Your task to perform on an android device: Open the calendar app, open the side menu, and click the "Day" option Image 0: 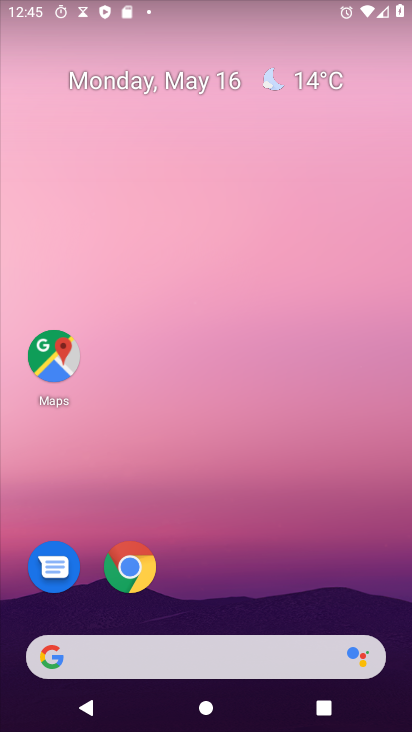
Step 0: drag from (279, 605) to (340, 6)
Your task to perform on an android device: Open the calendar app, open the side menu, and click the "Day" option Image 1: 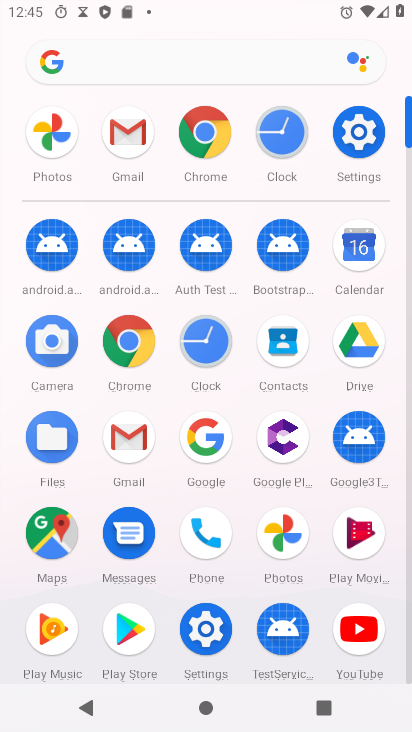
Step 1: click (367, 240)
Your task to perform on an android device: Open the calendar app, open the side menu, and click the "Day" option Image 2: 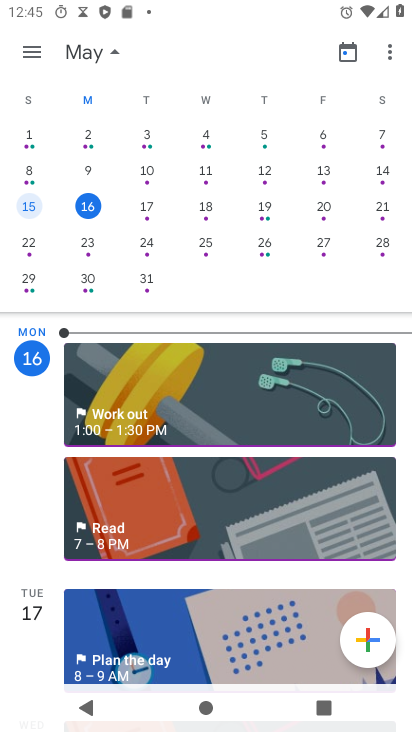
Step 2: click (100, 52)
Your task to perform on an android device: Open the calendar app, open the side menu, and click the "Day" option Image 3: 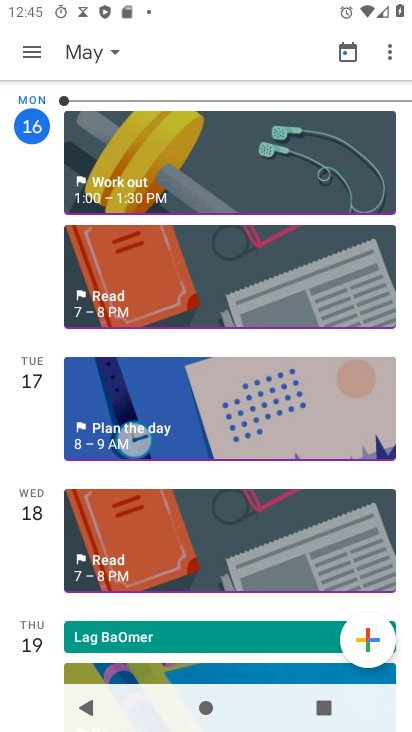
Step 3: click (31, 57)
Your task to perform on an android device: Open the calendar app, open the side menu, and click the "Day" option Image 4: 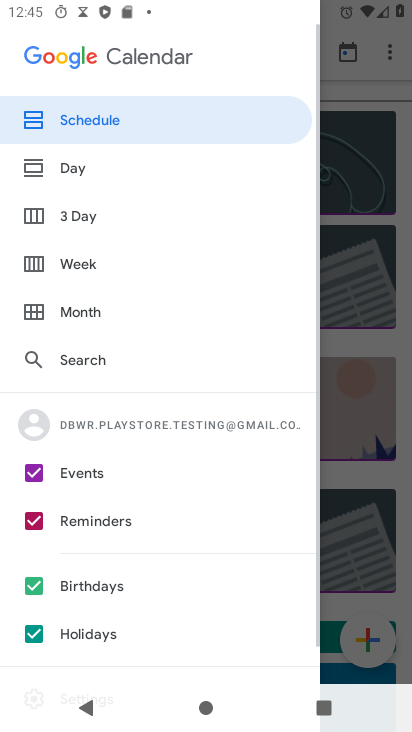
Step 4: click (91, 169)
Your task to perform on an android device: Open the calendar app, open the side menu, and click the "Day" option Image 5: 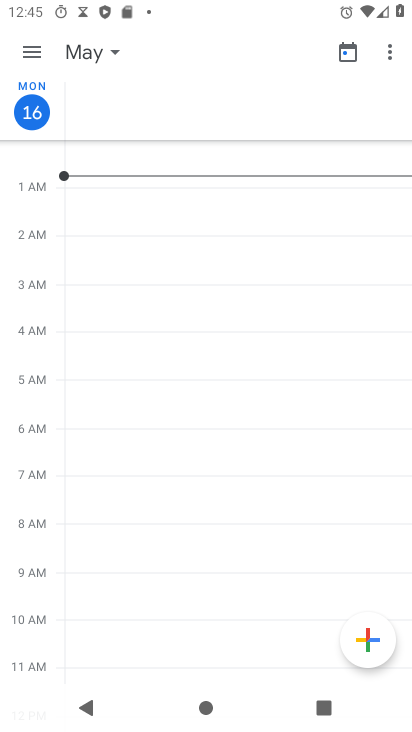
Step 5: task complete